Your task to perform on an android device: Install the ESPN app Image 0: 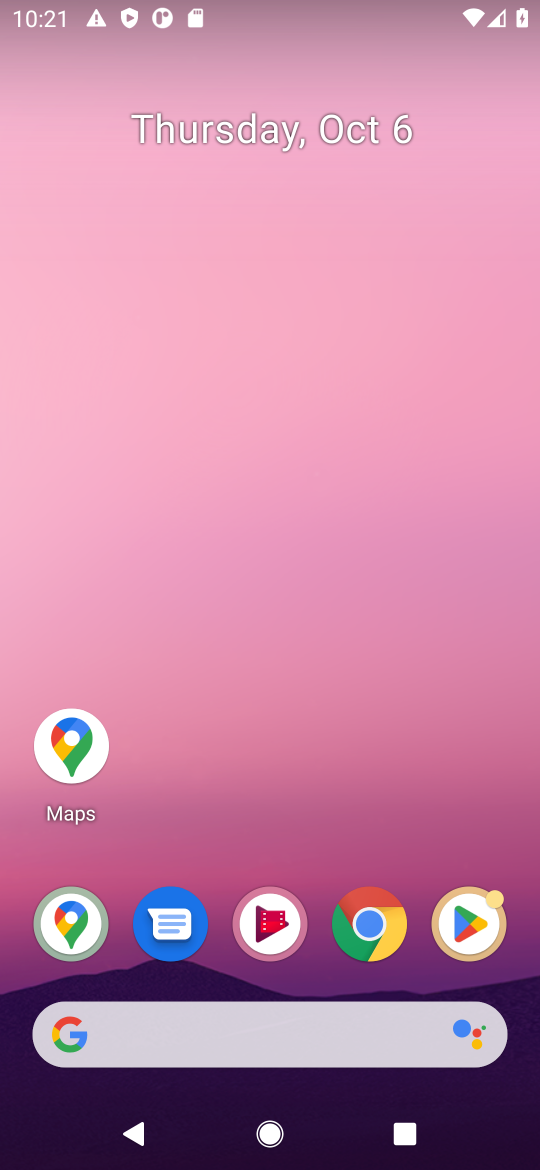
Step 0: drag from (269, 1032) to (472, 234)
Your task to perform on an android device: Install the ESPN app Image 1: 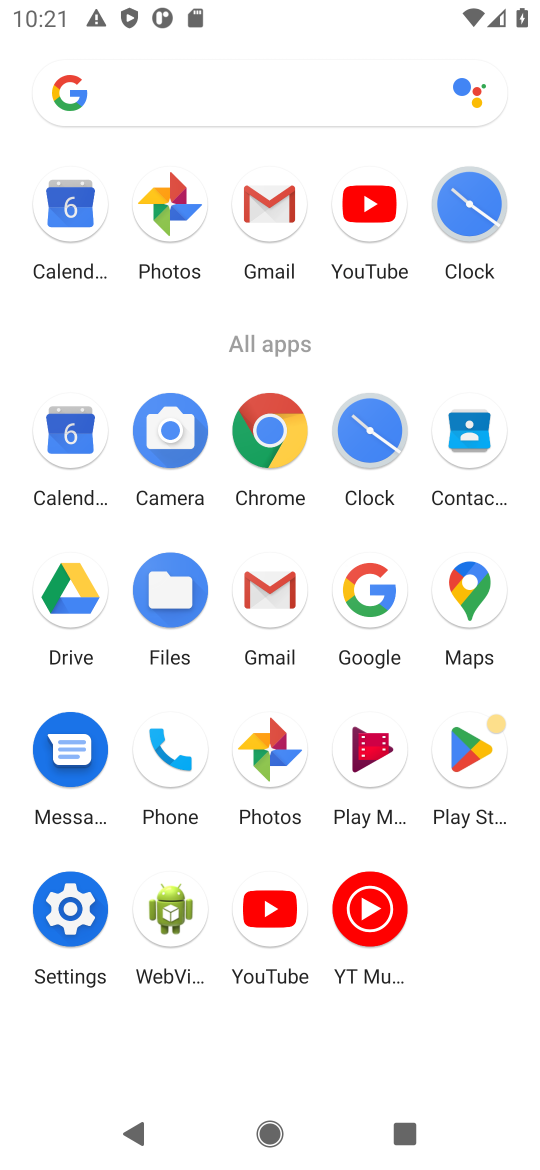
Step 1: click (473, 742)
Your task to perform on an android device: Install the ESPN app Image 2: 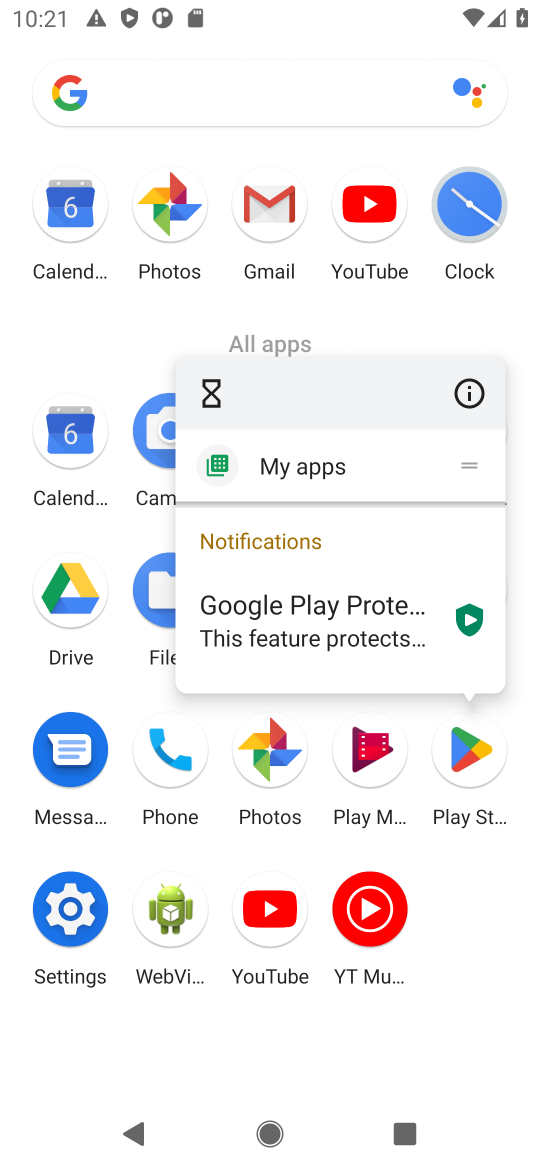
Step 2: click (471, 751)
Your task to perform on an android device: Install the ESPN app Image 3: 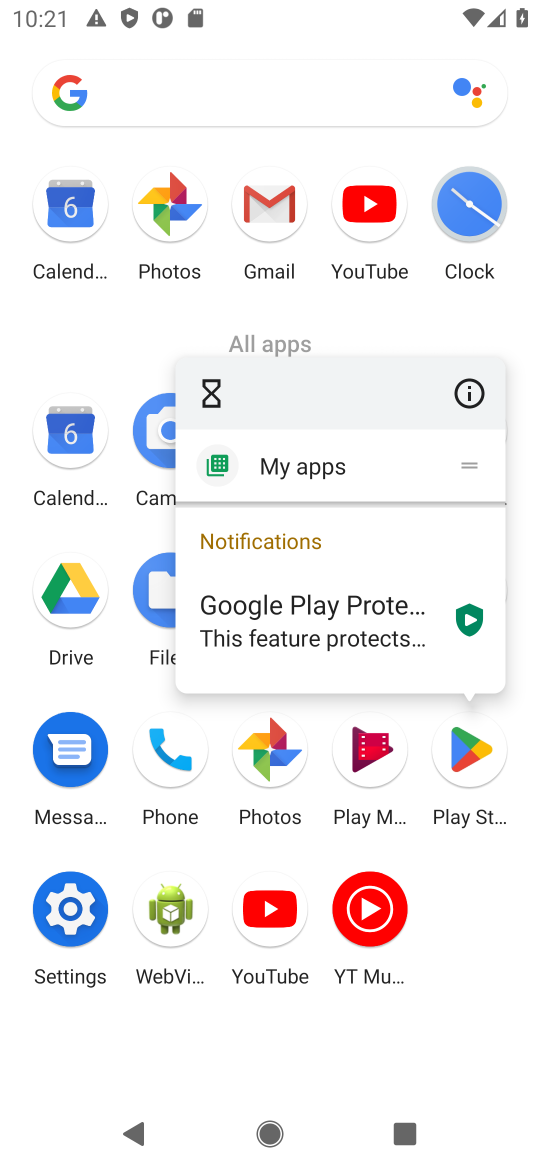
Step 3: click (464, 757)
Your task to perform on an android device: Install the ESPN app Image 4: 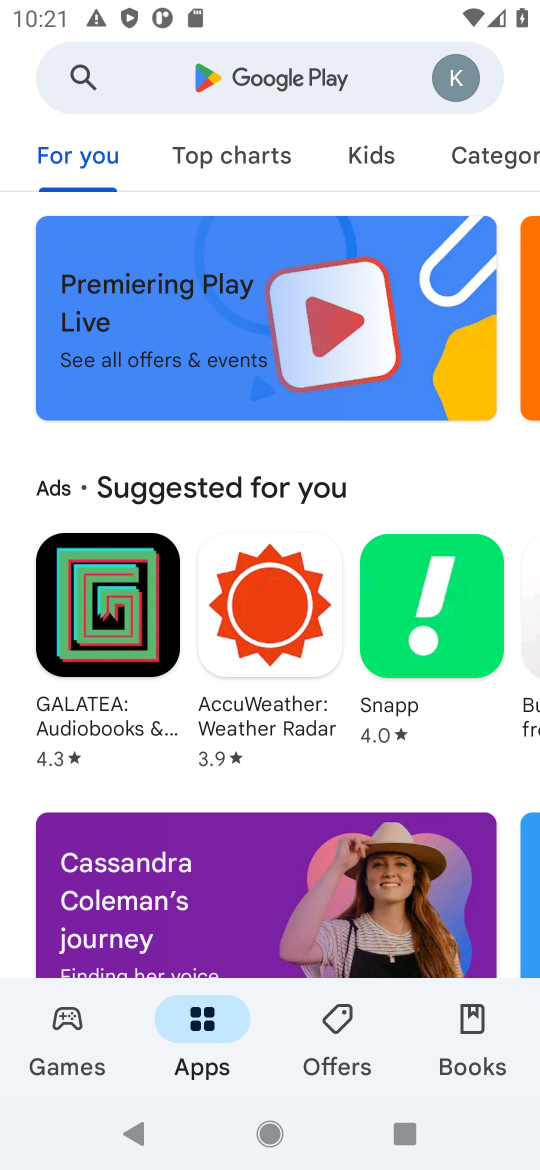
Step 4: click (287, 77)
Your task to perform on an android device: Install the ESPN app Image 5: 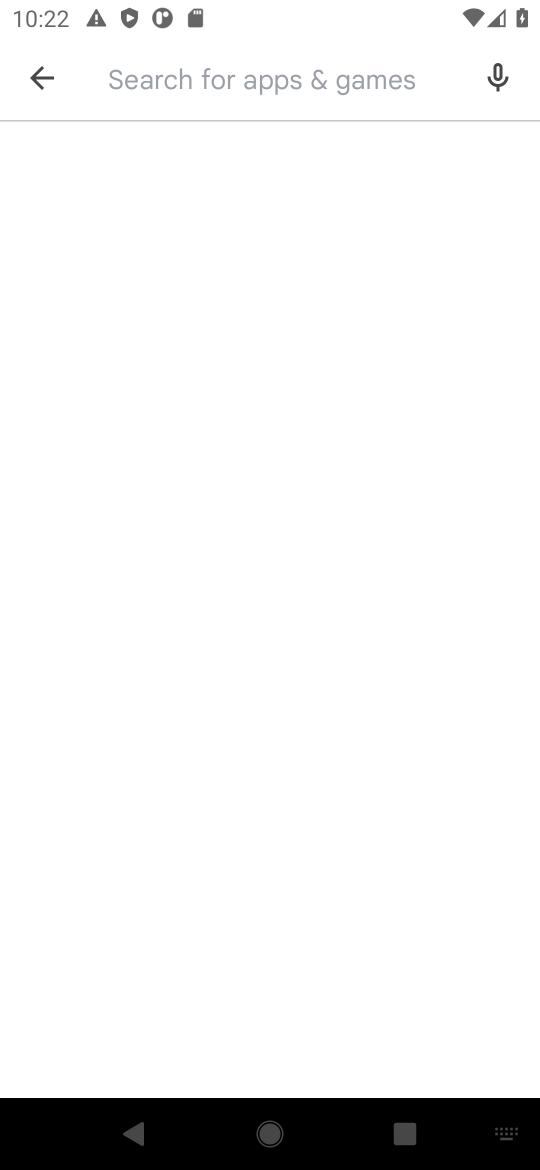
Step 5: type "ESPN app"
Your task to perform on an android device: Install the ESPN app Image 6: 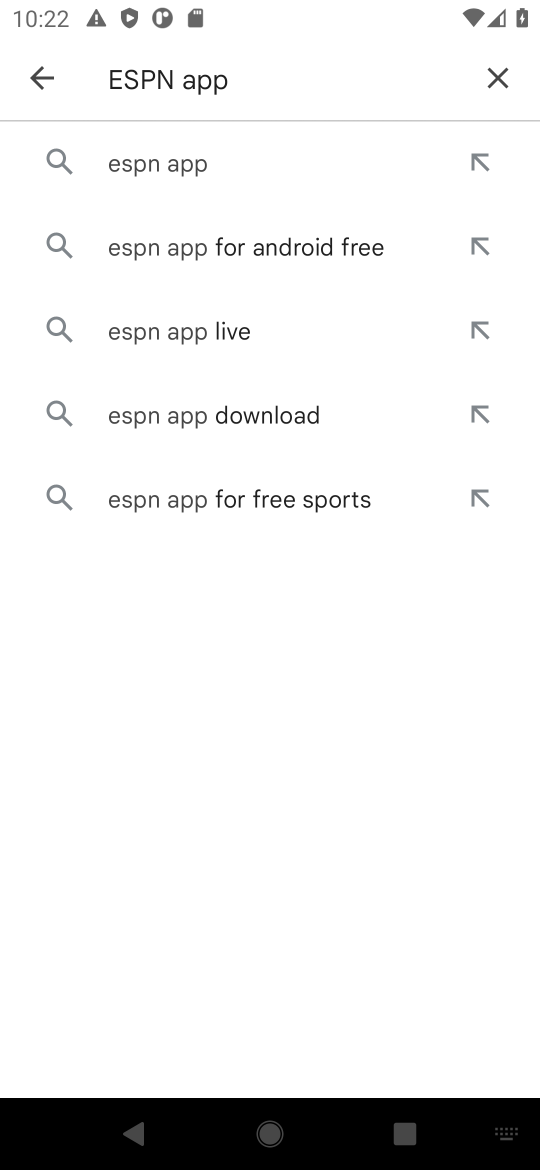
Step 6: click (149, 170)
Your task to perform on an android device: Install the ESPN app Image 7: 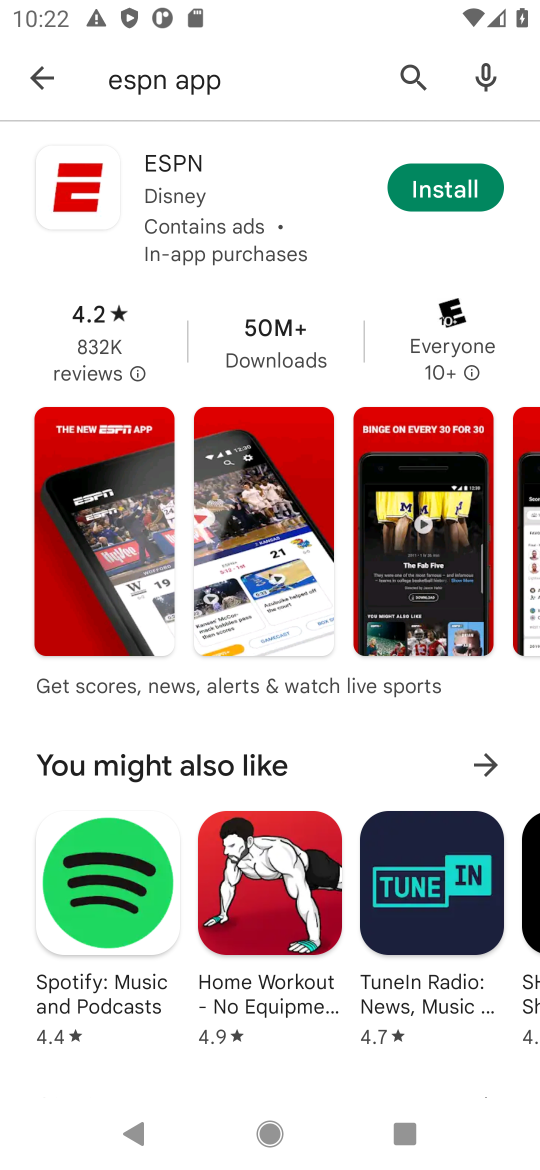
Step 7: click (447, 186)
Your task to perform on an android device: Install the ESPN app Image 8: 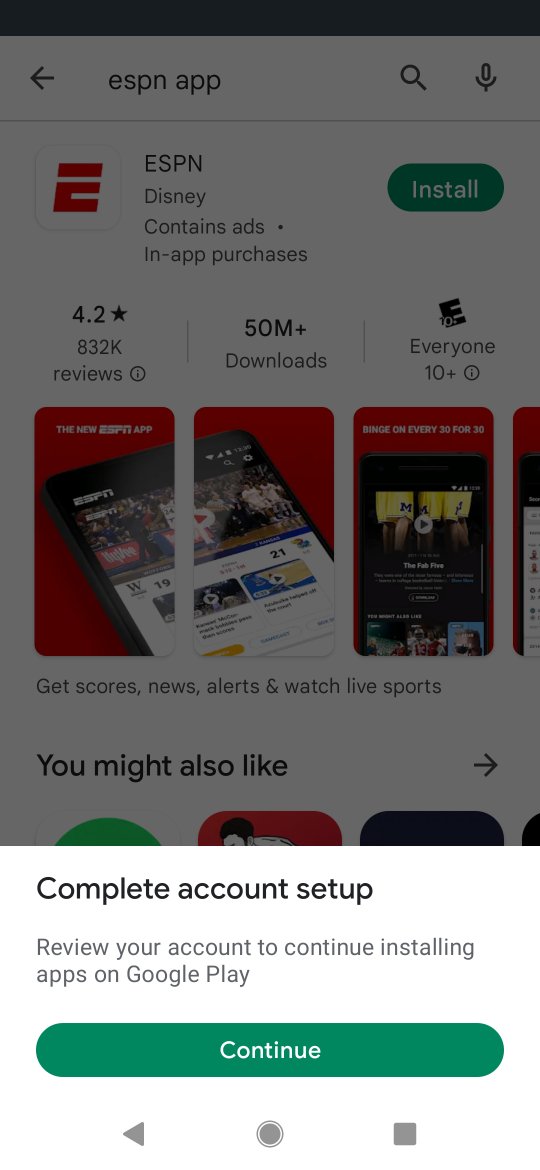
Step 8: click (292, 1047)
Your task to perform on an android device: Install the ESPN app Image 9: 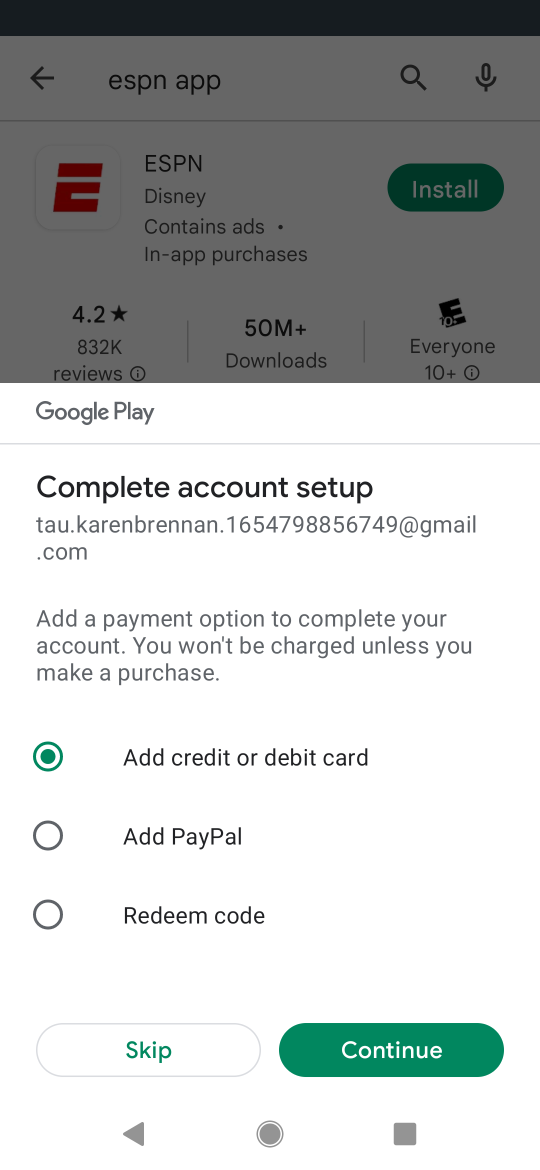
Step 9: click (195, 1056)
Your task to perform on an android device: Install the ESPN app Image 10: 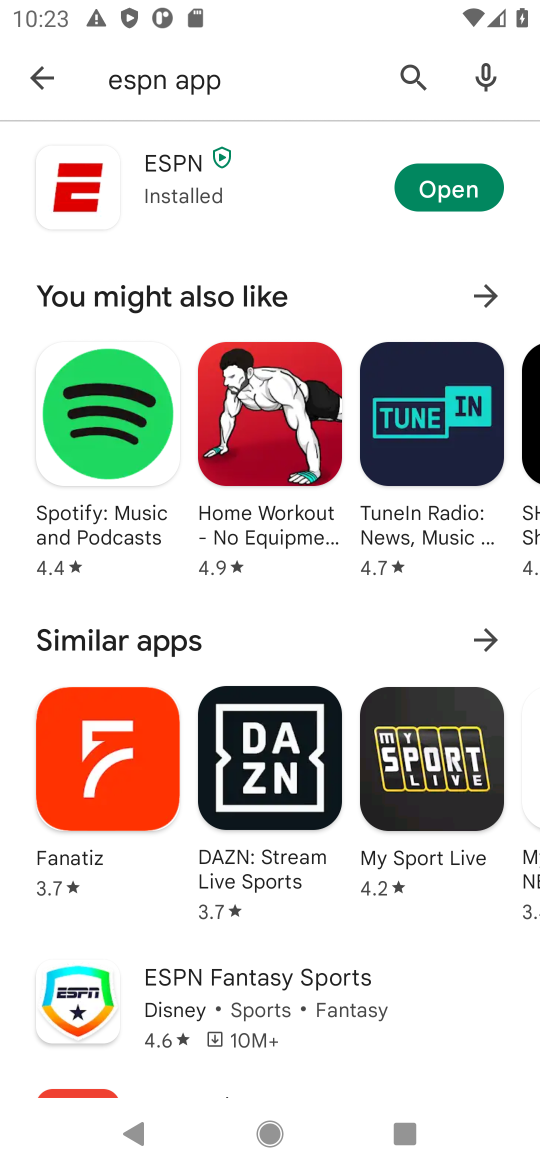
Step 10: task complete